Your task to perform on an android device: add a contact Image 0: 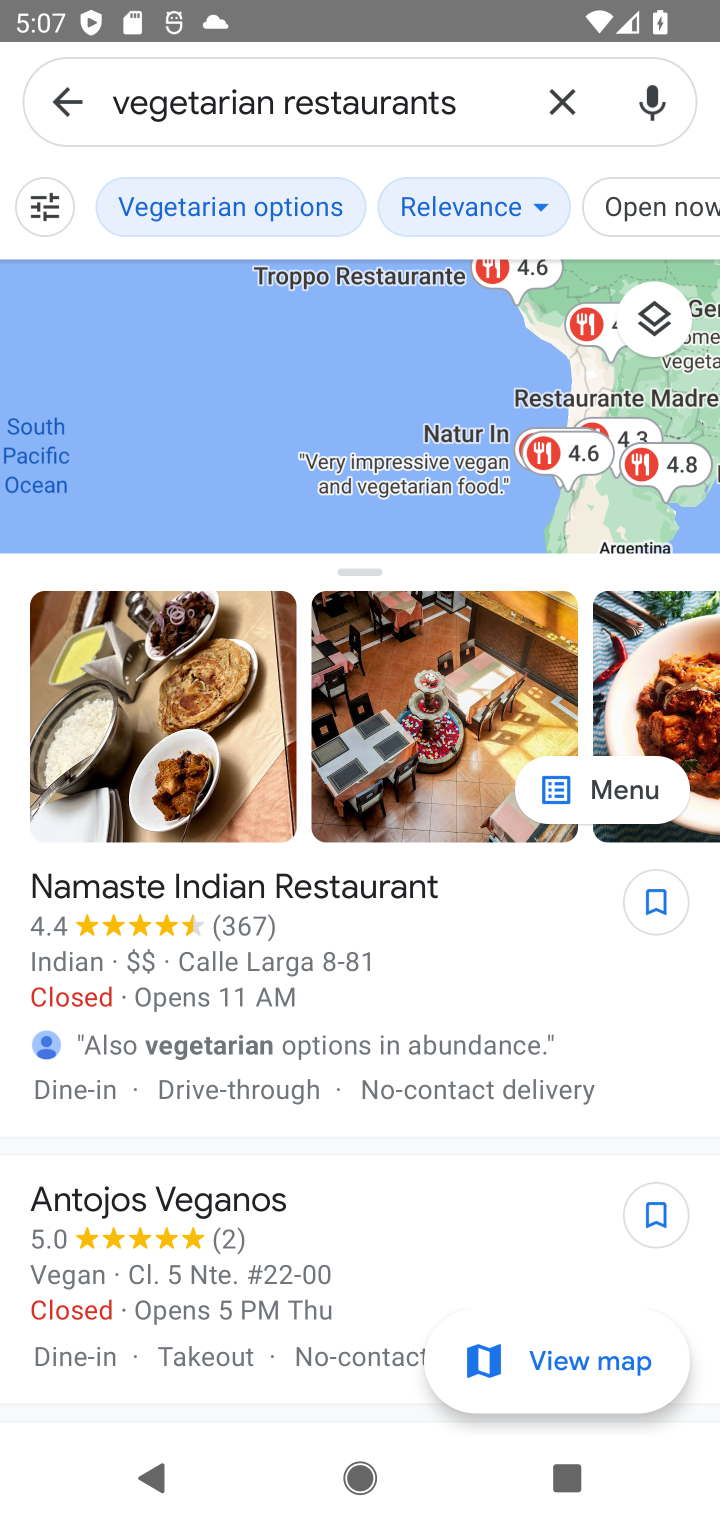
Step 0: press home button
Your task to perform on an android device: add a contact Image 1: 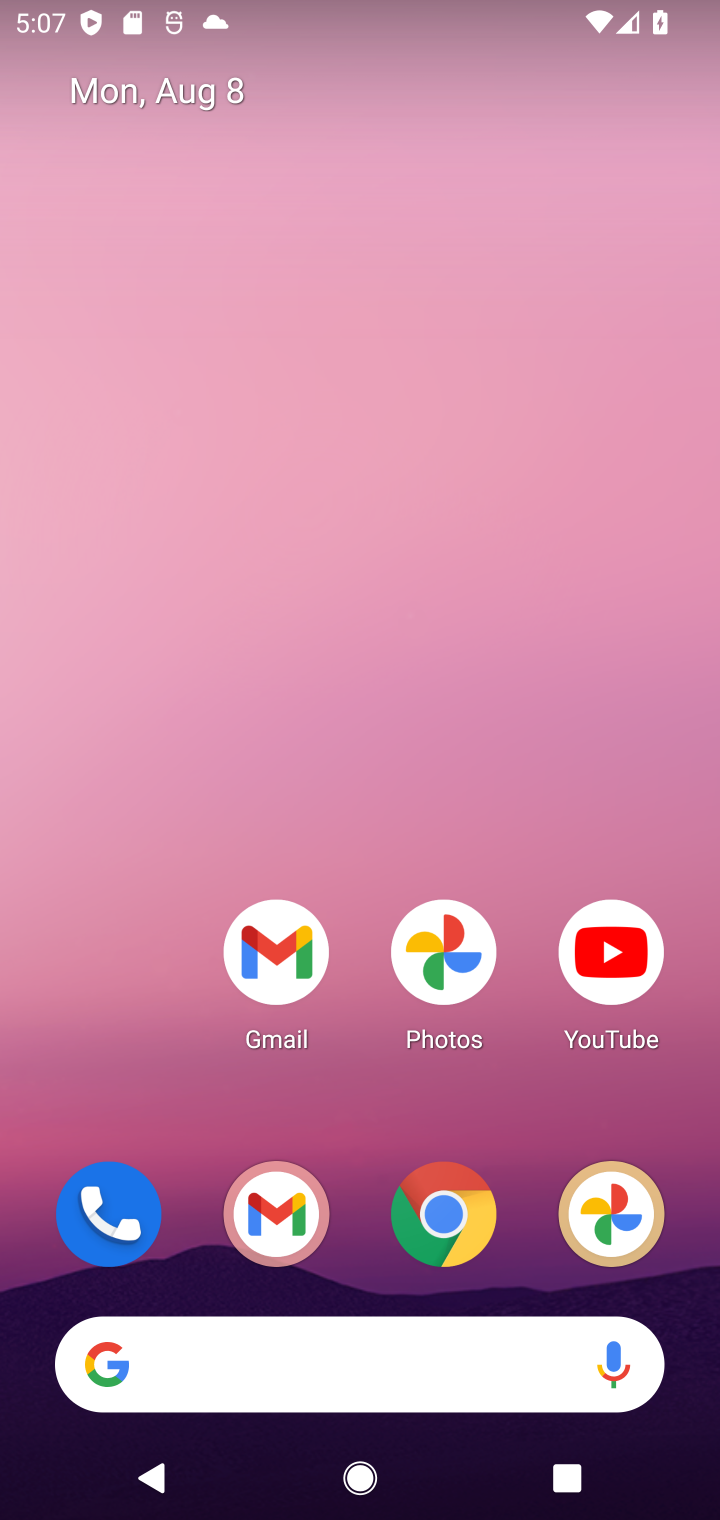
Step 1: drag from (374, 1300) to (367, 51)
Your task to perform on an android device: add a contact Image 2: 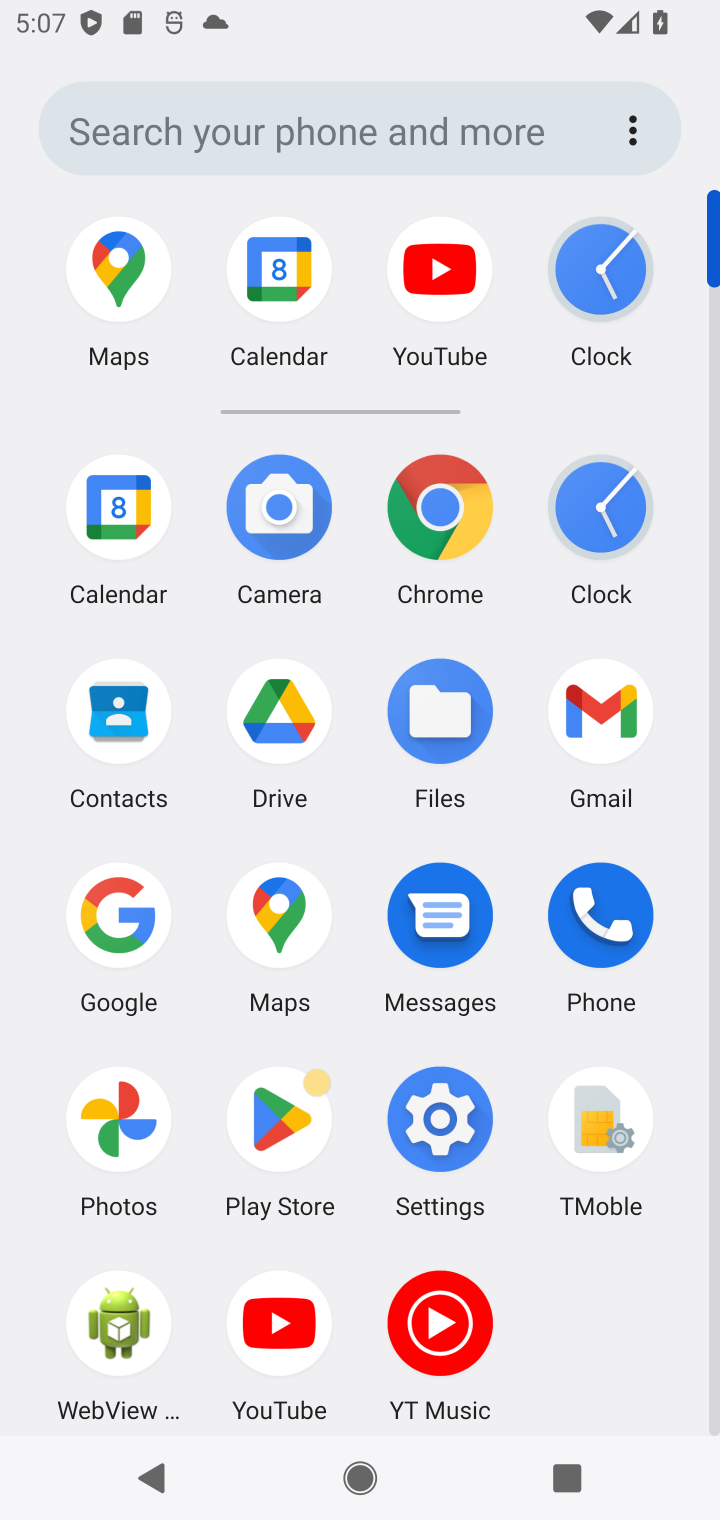
Step 2: click (111, 704)
Your task to perform on an android device: add a contact Image 3: 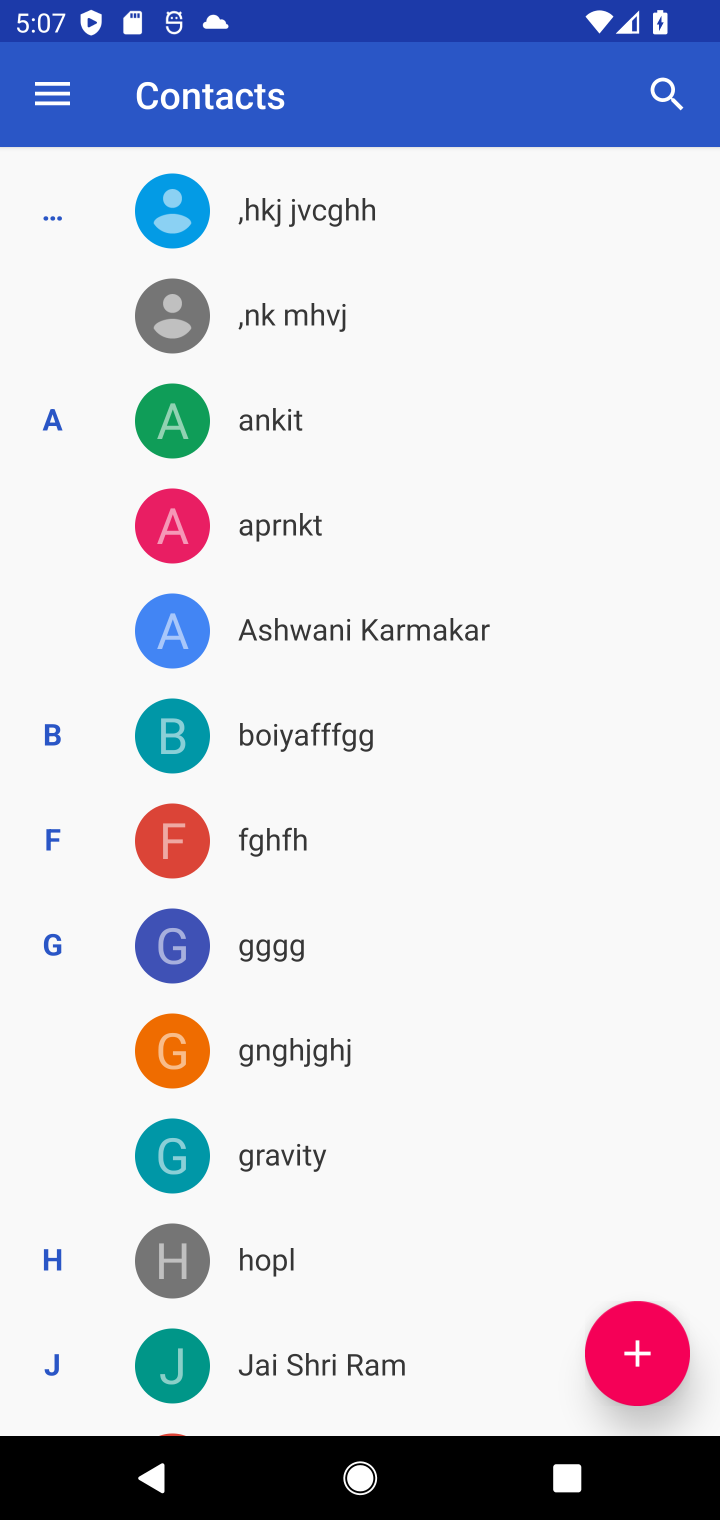
Step 3: click (636, 1353)
Your task to perform on an android device: add a contact Image 4: 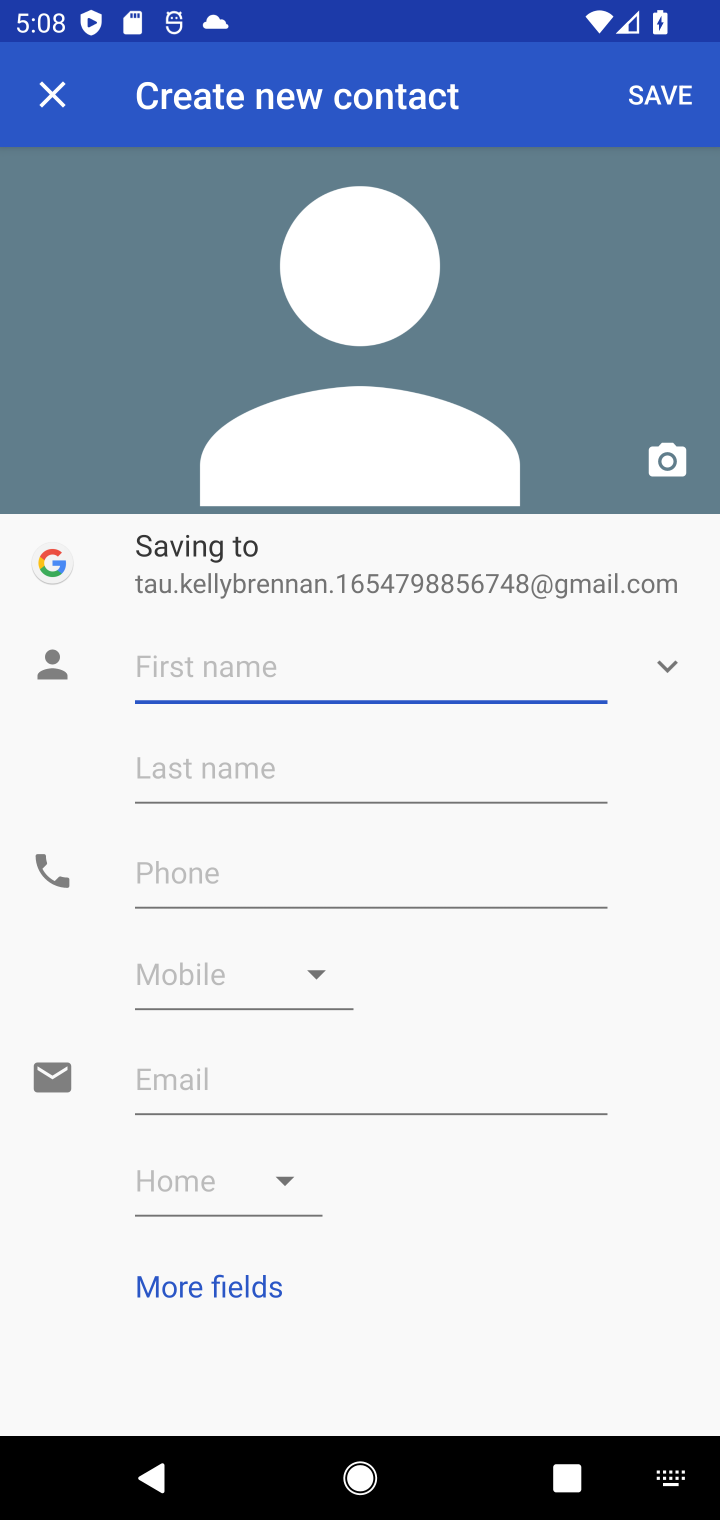
Step 4: type "nn"
Your task to perform on an android device: add a contact Image 5: 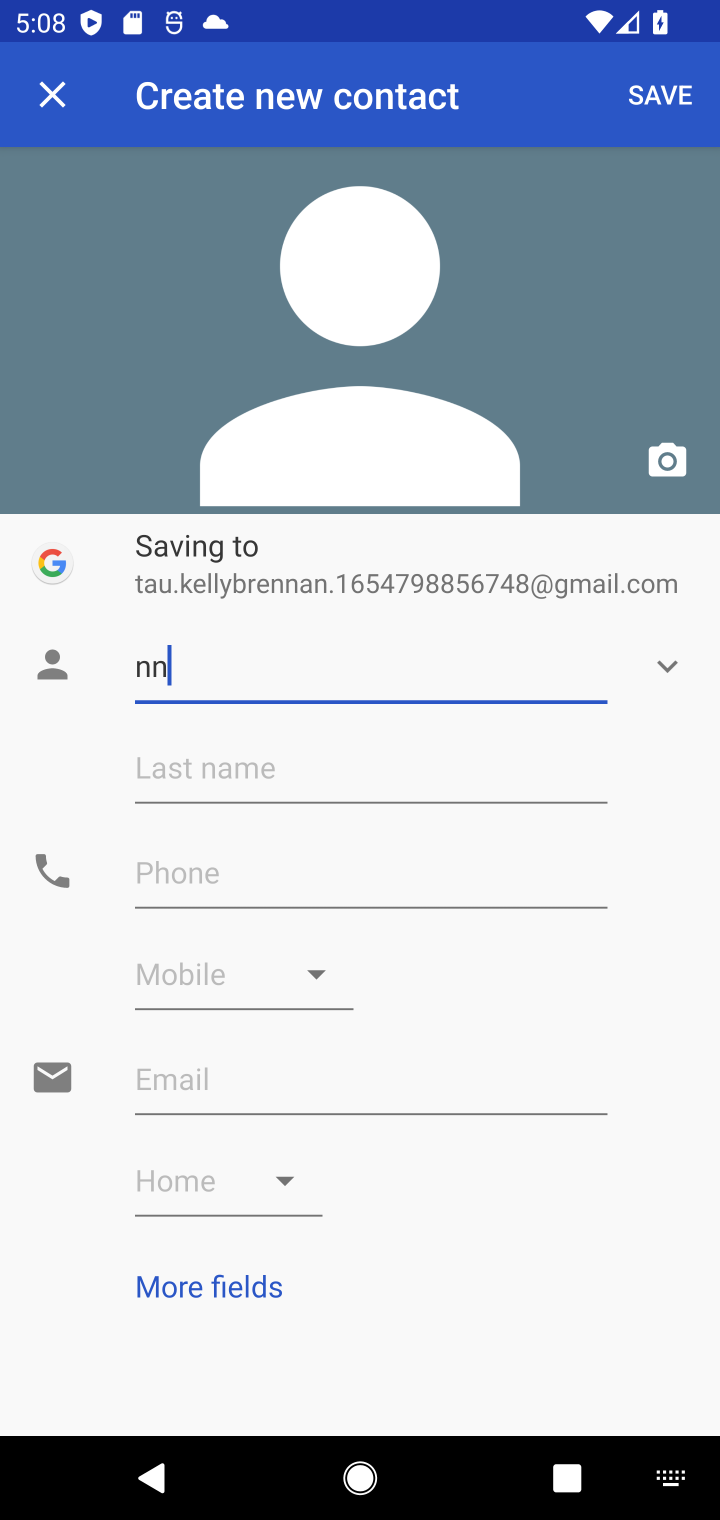
Step 5: click (261, 876)
Your task to perform on an android device: add a contact Image 6: 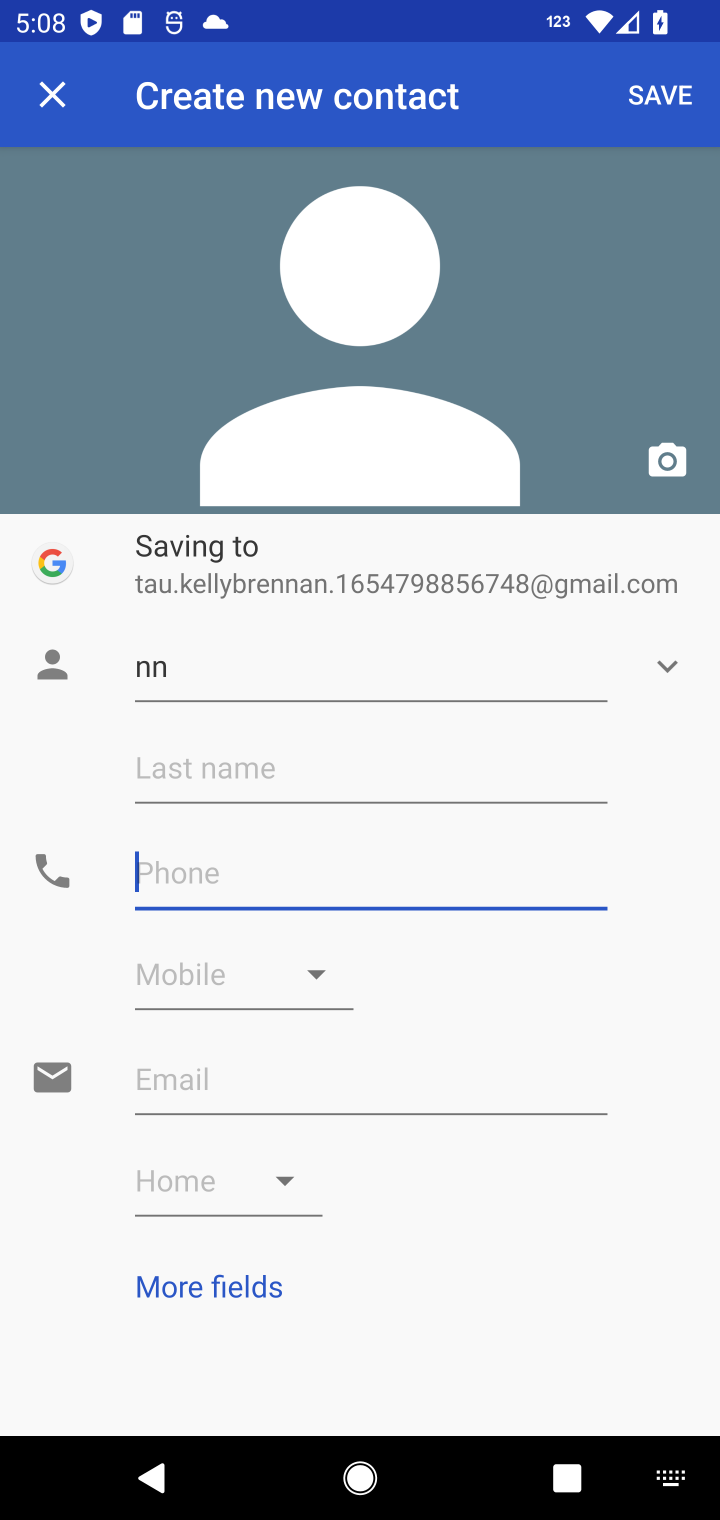
Step 6: type "887"
Your task to perform on an android device: add a contact Image 7: 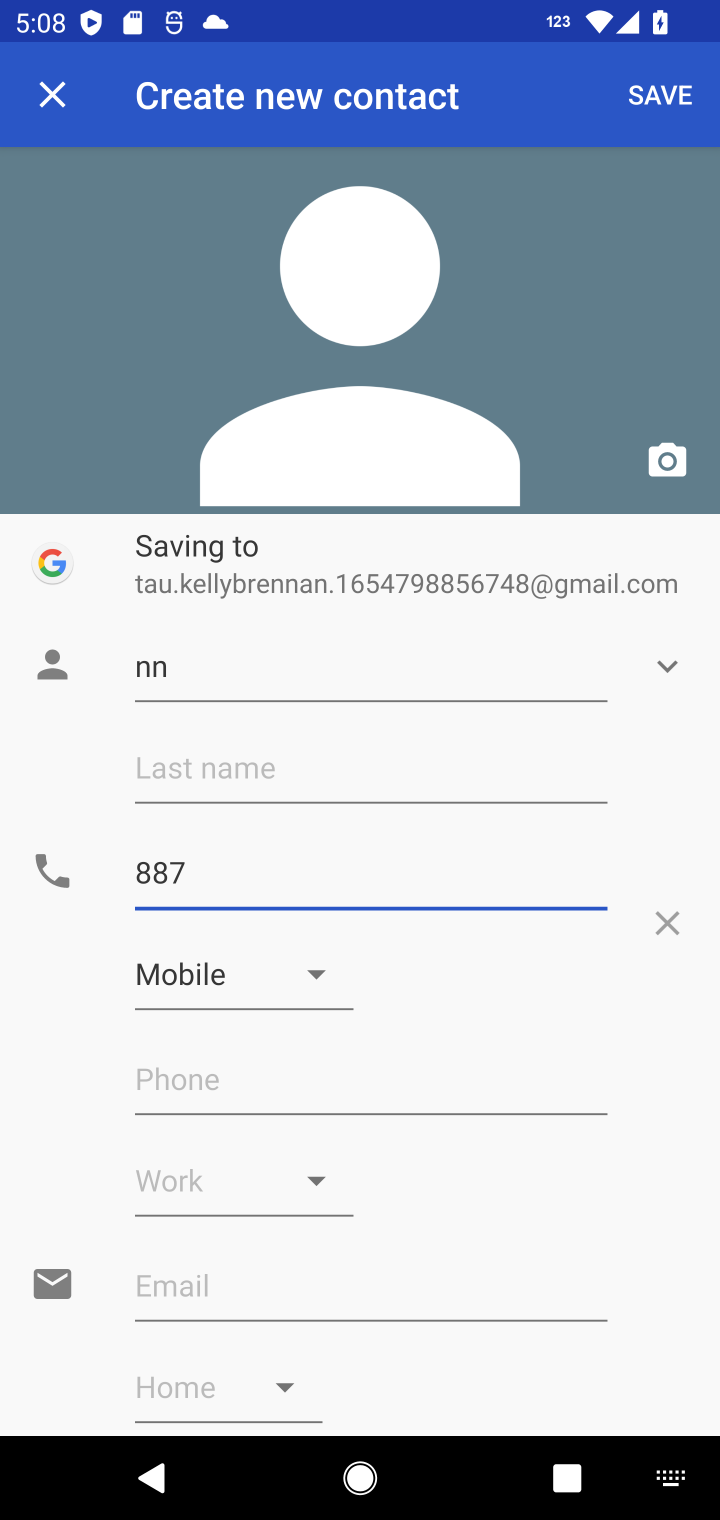
Step 7: click (671, 95)
Your task to perform on an android device: add a contact Image 8: 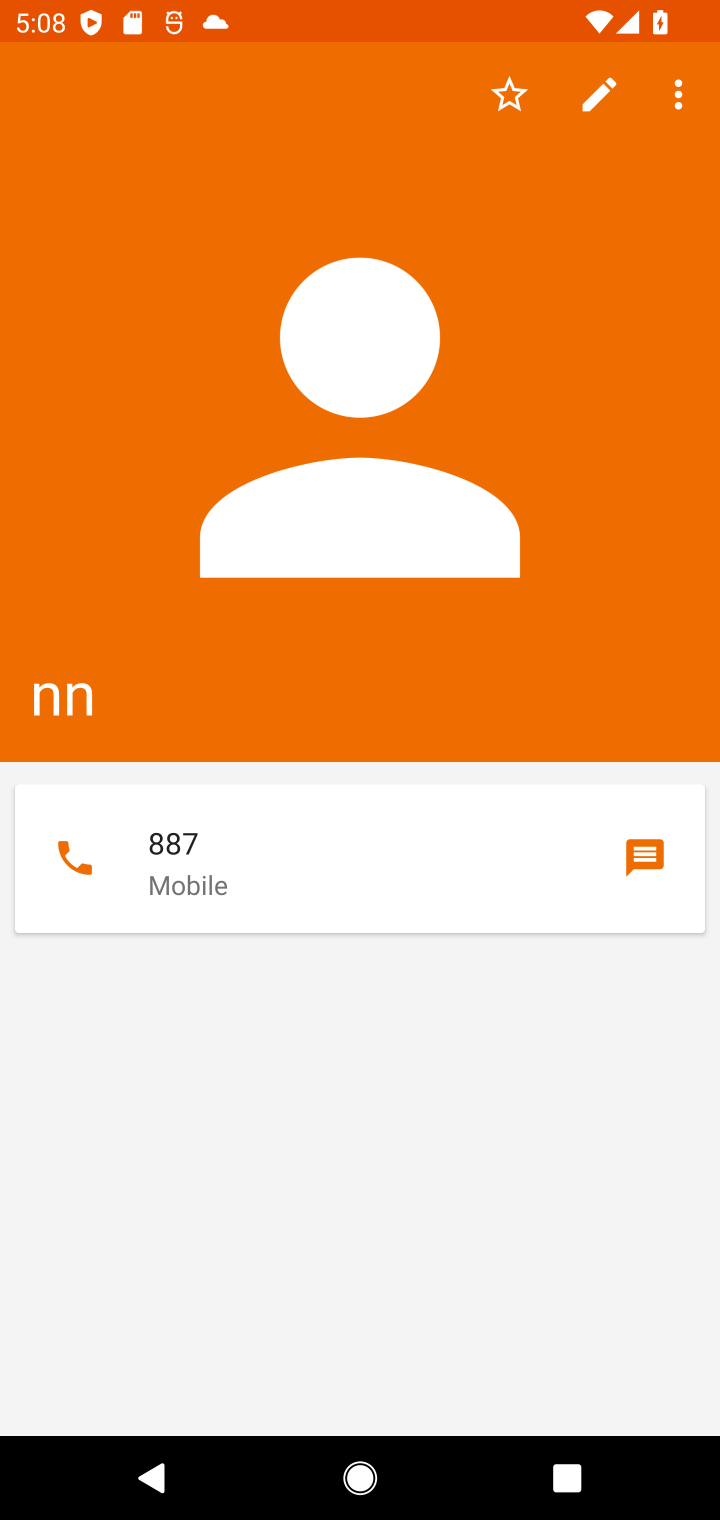
Step 8: task complete